Your task to perform on an android device: Go to settings Image 0: 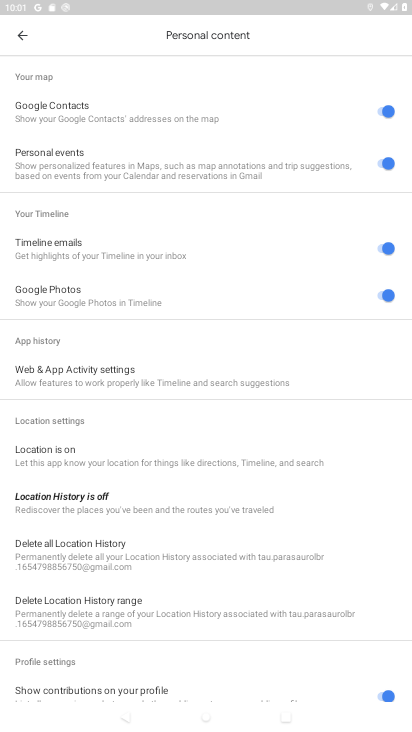
Step 0: drag from (298, 9) to (324, 689)
Your task to perform on an android device: Go to settings Image 1: 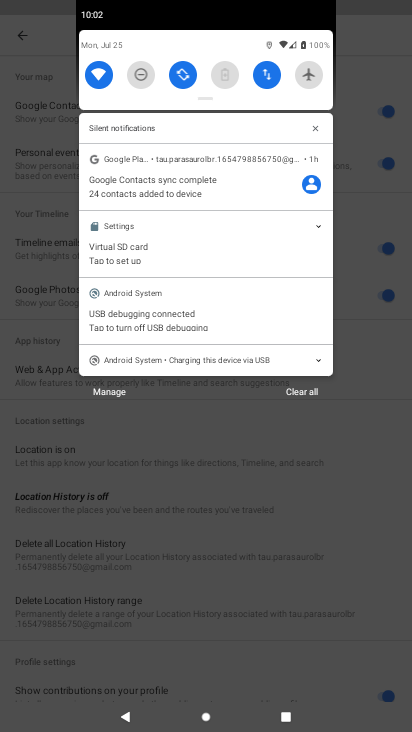
Step 1: drag from (209, 59) to (326, 693)
Your task to perform on an android device: Go to settings Image 2: 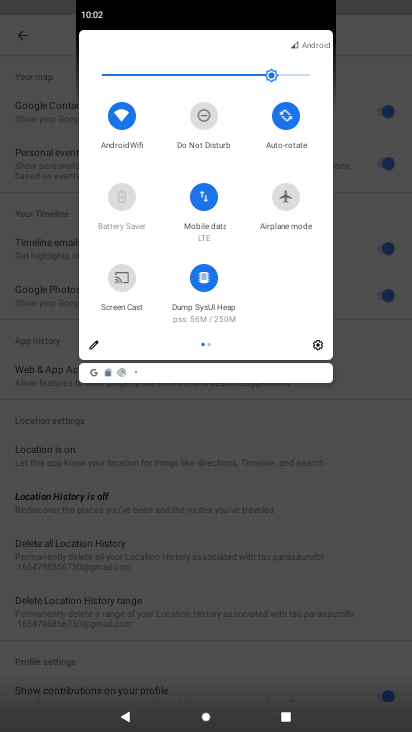
Step 2: click (322, 341)
Your task to perform on an android device: Go to settings Image 3: 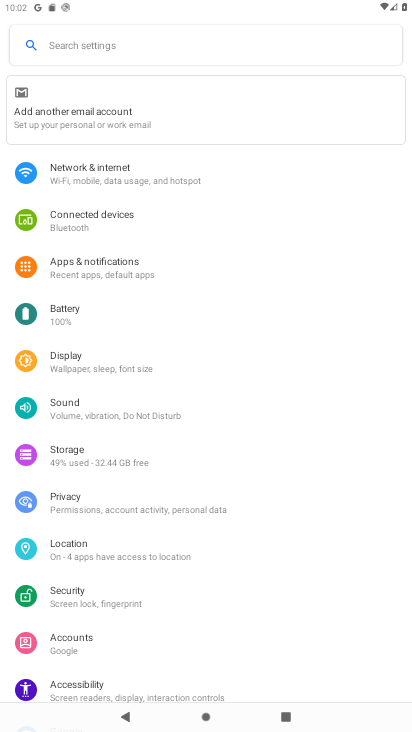
Step 3: task complete